Your task to perform on an android device: find snoozed emails in the gmail app Image 0: 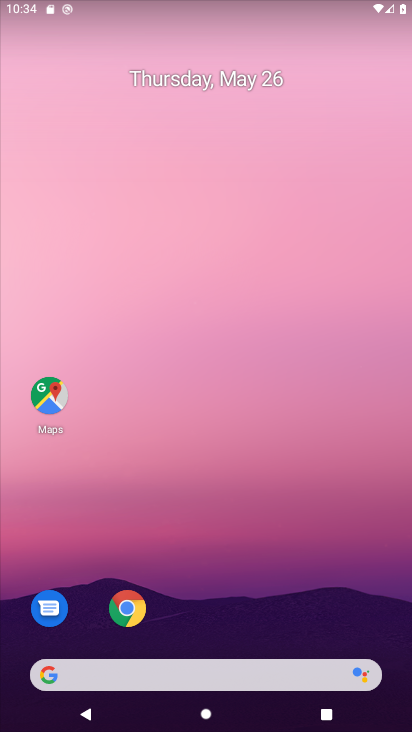
Step 0: drag from (396, 674) to (344, 186)
Your task to perform on an android device: find snoozed emails in the gmail app Image 1: 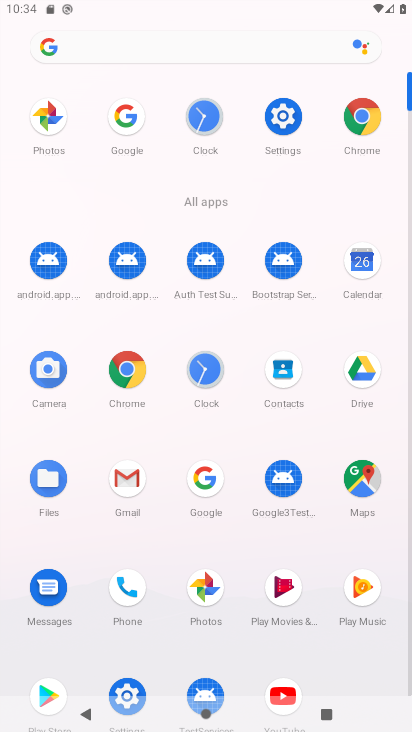
Step 1: drag from (83, 640) to (68, 414)
Your task to perform on an android device: find snoozed emails in the gmail app Image 2: 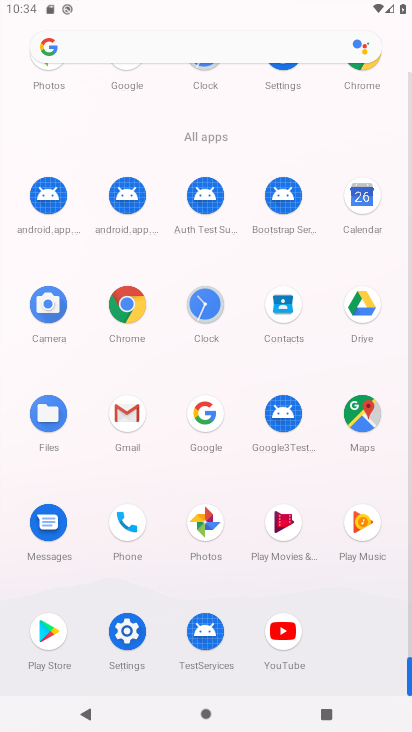
Step 2: click (122, 407)
Your task to perform on an android device: find snoozed emails in the gmail app Image 3: 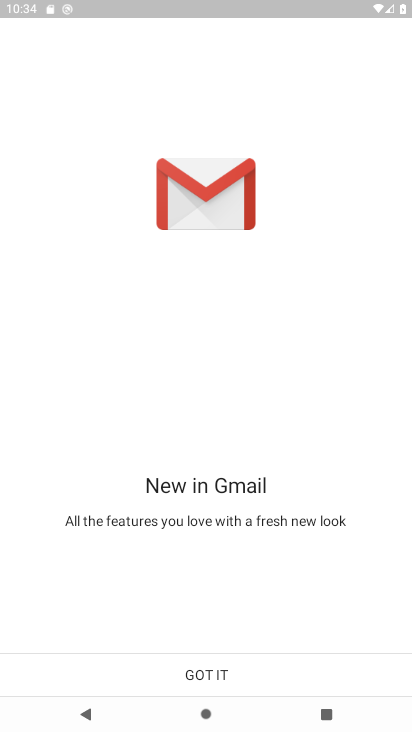
Step 3: click (200, 675)
Your task to perform on an android device: find snoozed emails in the gmail app Image 4: 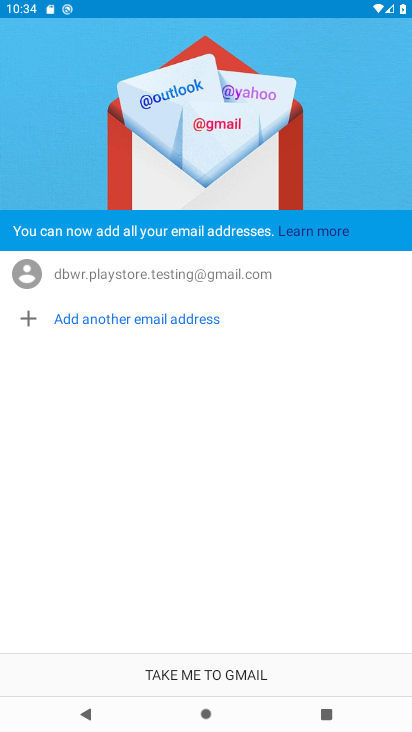
Step 4: click (200, 670)
Your task to perform on an android device: find snoozed emails in the gmail app Image 5: 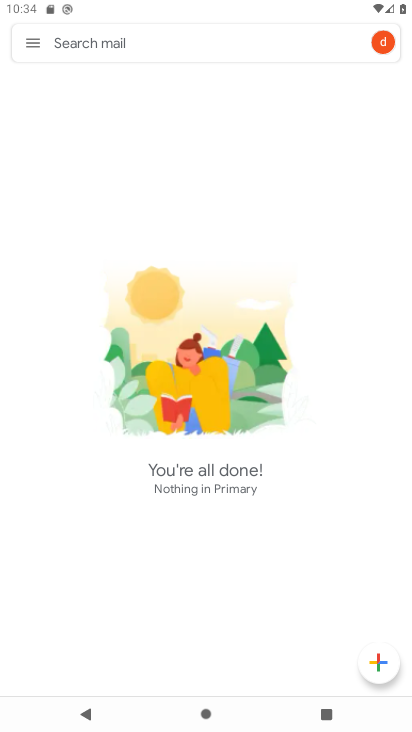
Step 5: click (34, 45)
Your task to perform on an android device: find snoozed emails in the gmail app Image 6: 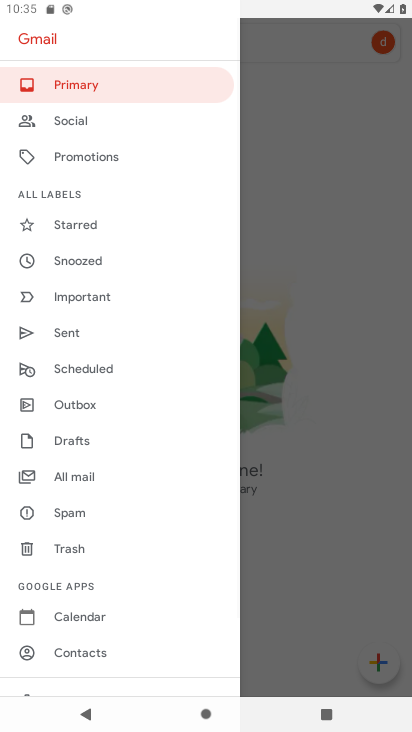
Step 6: click (92, 257)
Your task to perform on an android device: find snoozed emails in the gmail app Image 7: 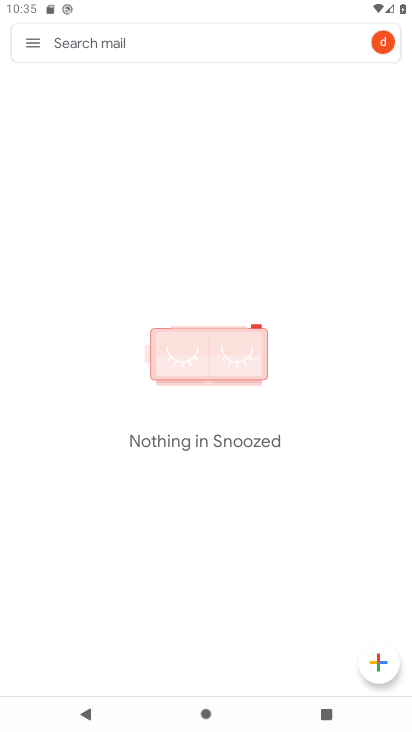
Step 7: task complete